Your task to perform on an android device: move an email to a new category in the gmail app Image 0: 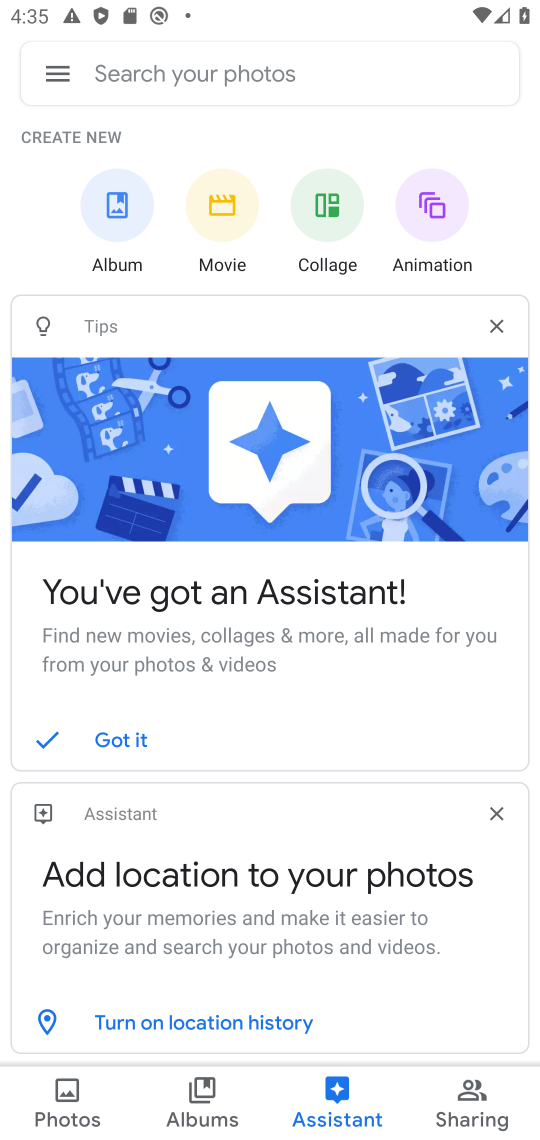
Step 0: press home button
Your task to perform on an android device: move an email to a new category in the gmail app Image 1: 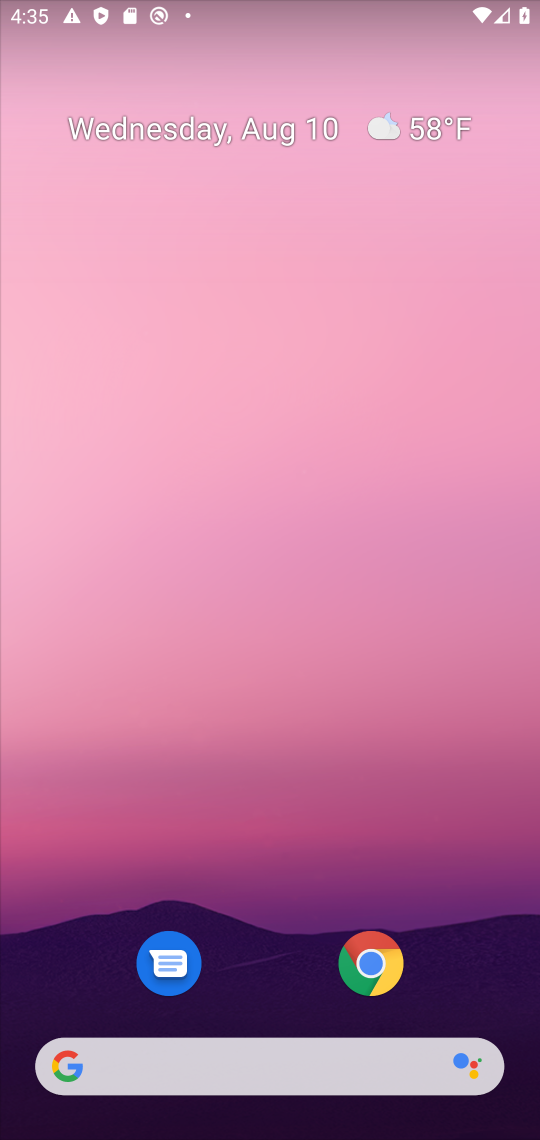
Step 1: drag from (306, 1005) to (321, 32)
Your task to perform on an android device: move an email to a new category in the gmail app Image 2: 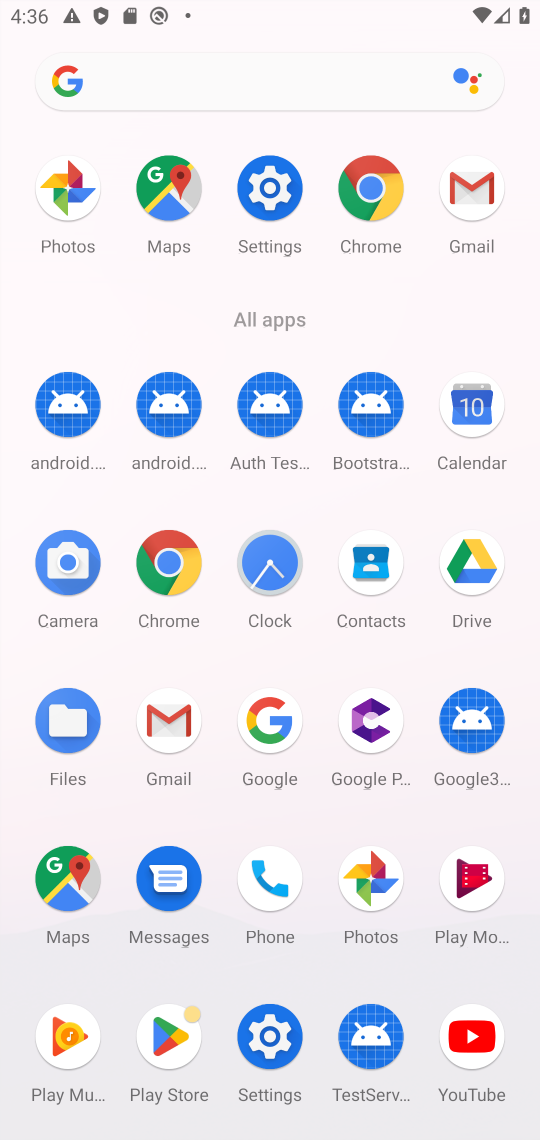
Step 2: click (176, 718)
Your task to perform on an android device: move an email to a new category in the gmail app Image 3: 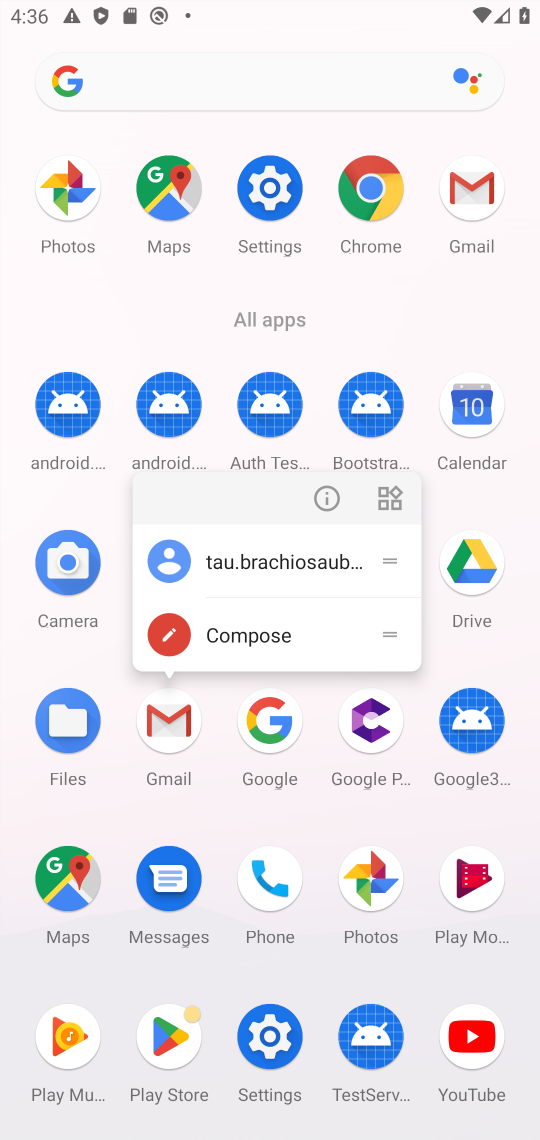
Step 3: click (182, 724)
Your task to perform on an android device: move an email to a new category in the gmail app Image 4: 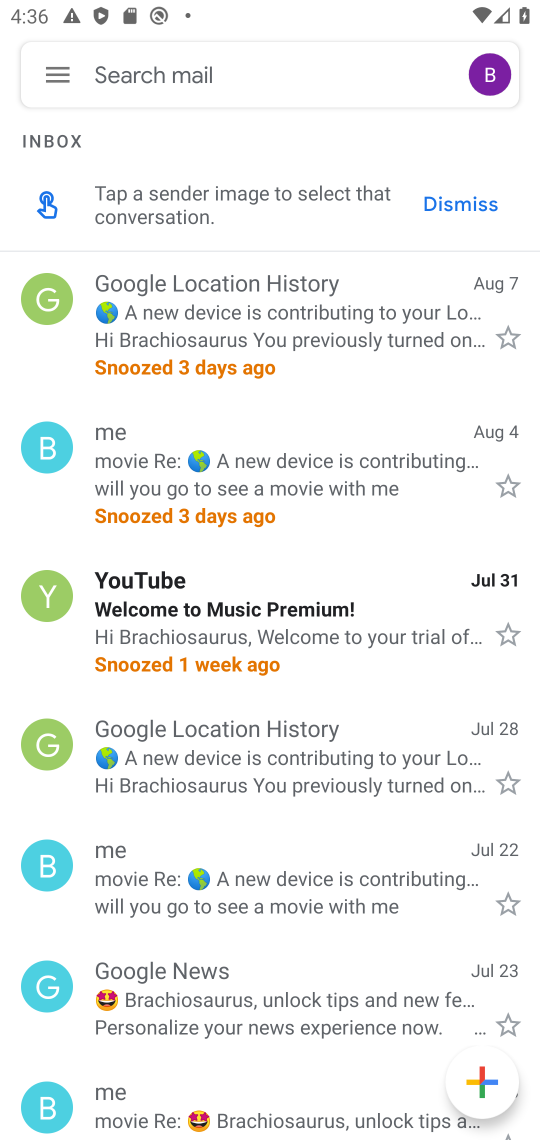
Step 4: click (54, 85)
Your task to perform on an android device: move an email to a new category in the gmail app Image 5: 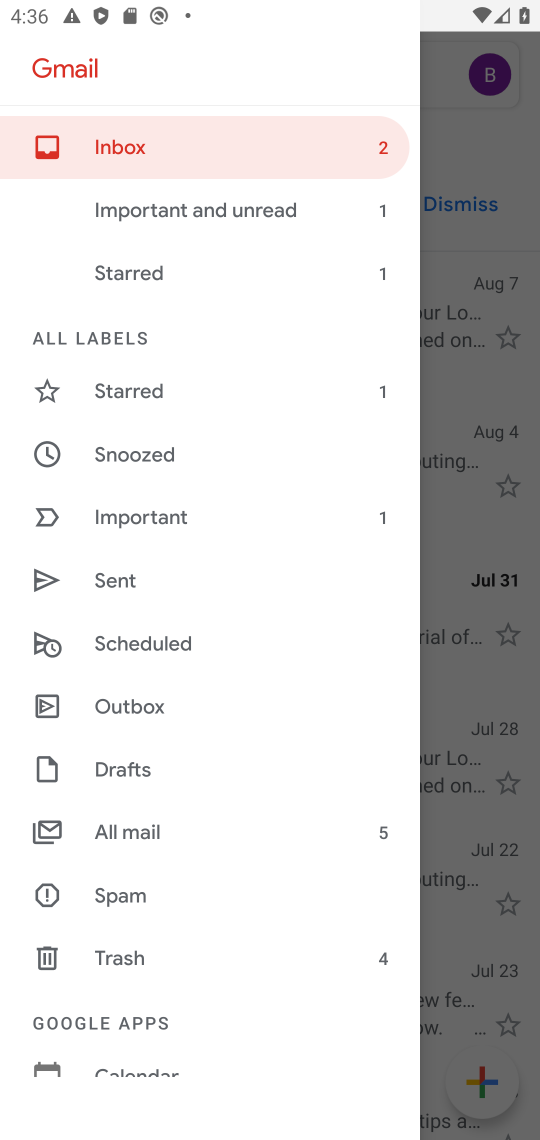
Step 5: click (494, 126)
Your task to perform on an android device: move an email to a new category in the gmail app Image 6: 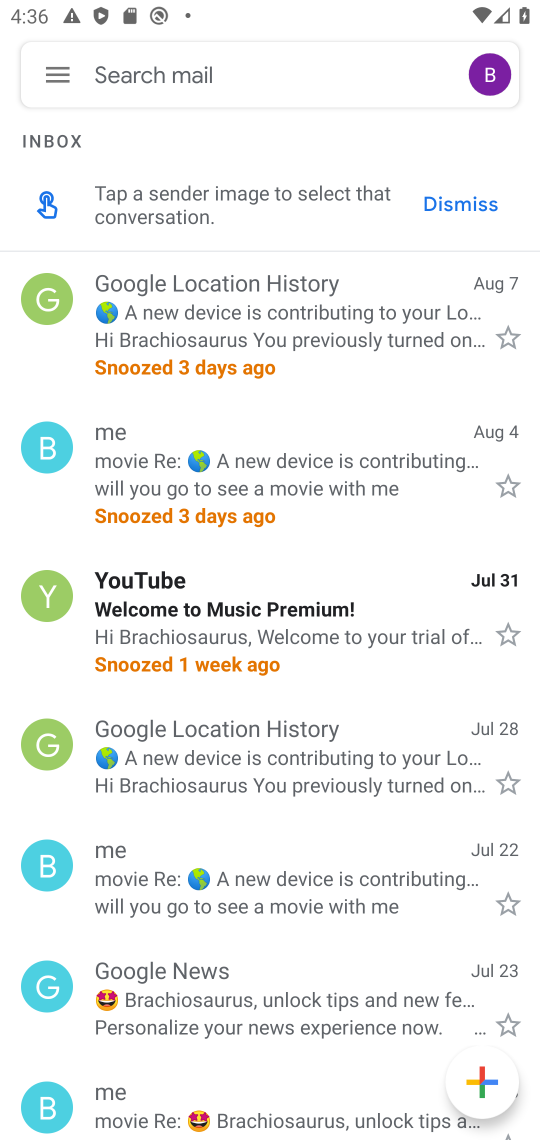
Step 6: click (62, 276)
Your task to perform on an android device: move an email to a new category in the gmail app Image 7: 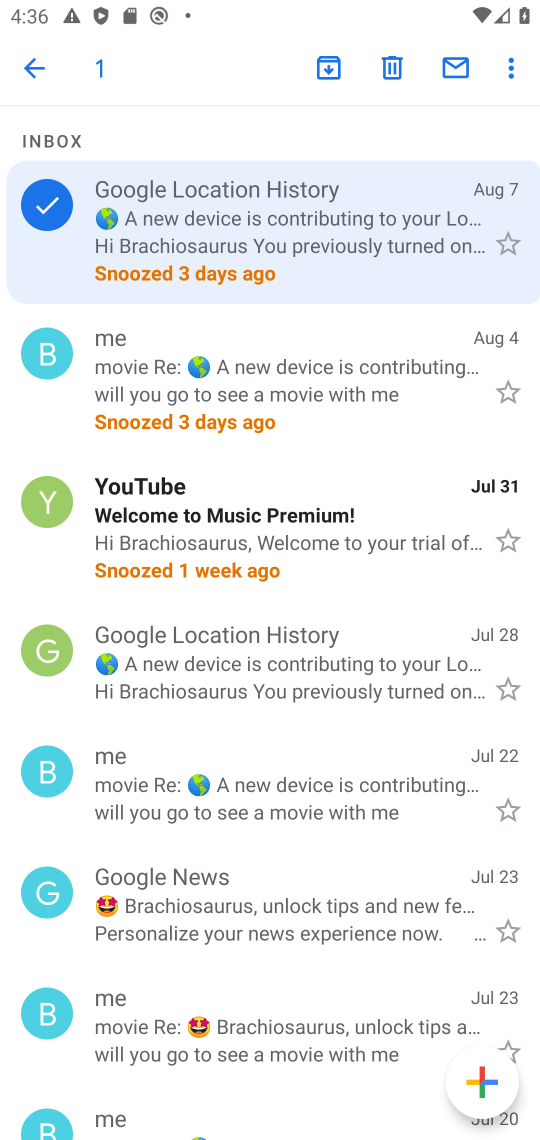
Step 7: click (50, 369)
Your task to perform on an android device: move an email to a new category in the gmail app Image 8: 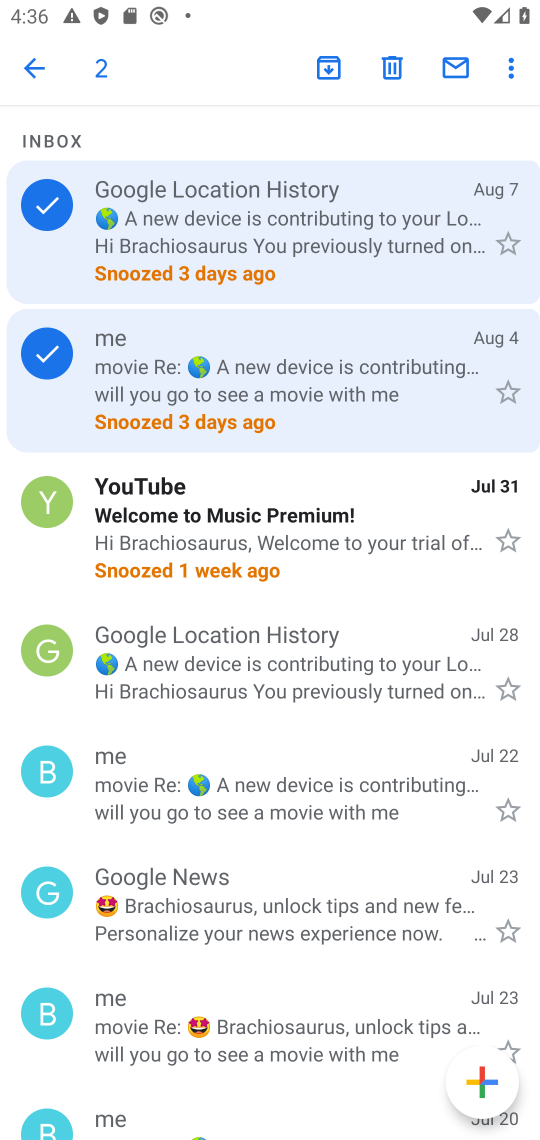
Step 8: click (516, 53)
Your task to perform on an android device: move an email to a new category in the gmail app Image 9: 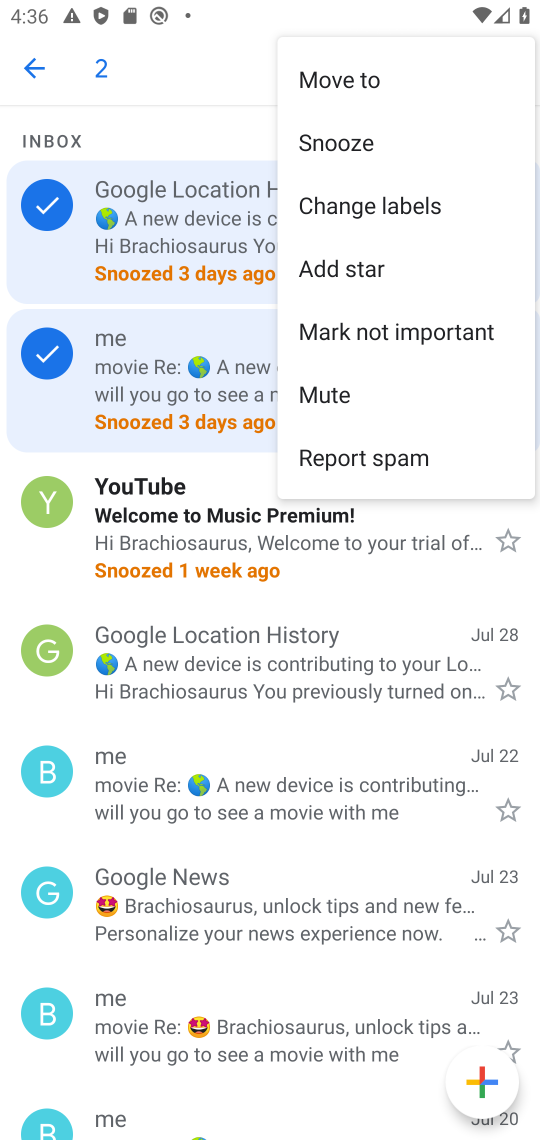
Step 9: click (347, 87)
Your task to perform on an android device: move an email to a new category in the gmail app Image 10: 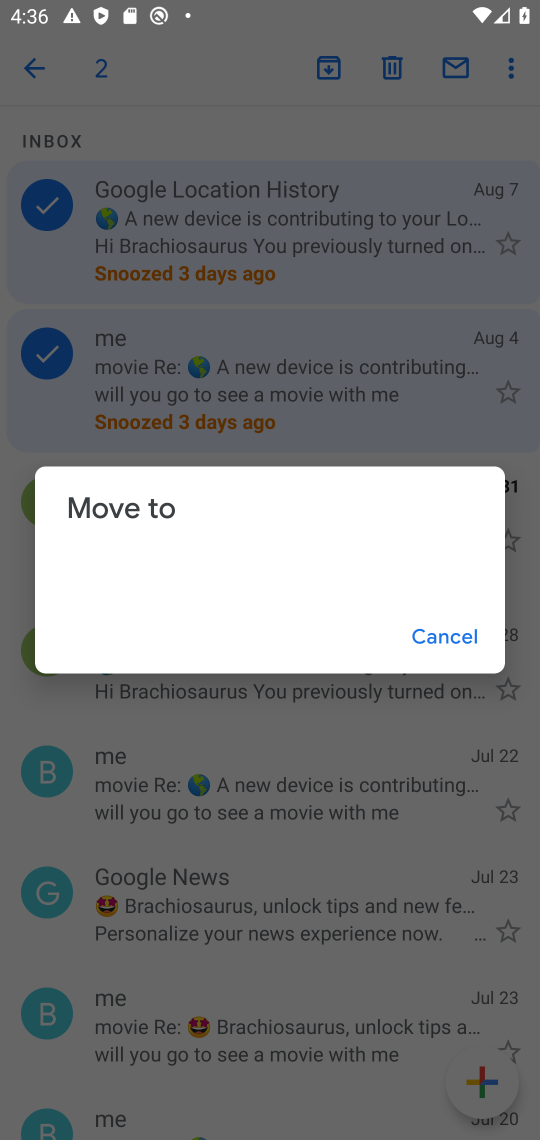
Step 10: click (440, 631)
Your task to perform on an android device: move an email to a new category in the gmail app Image 11: 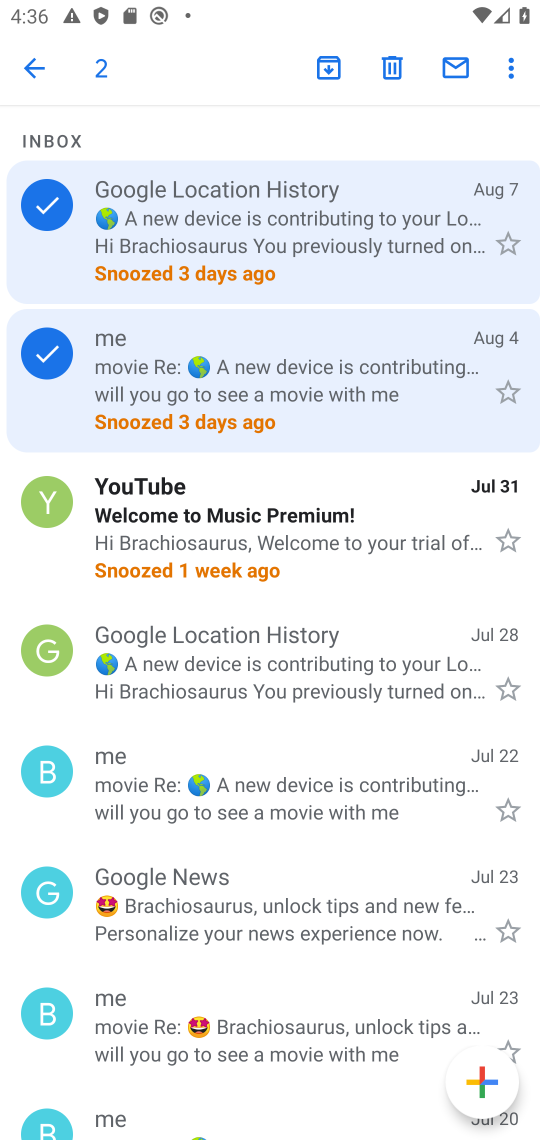
Step 11: task complete